Your task to perform on an android device: Open Youtube and go to "Your channel" Image 0: 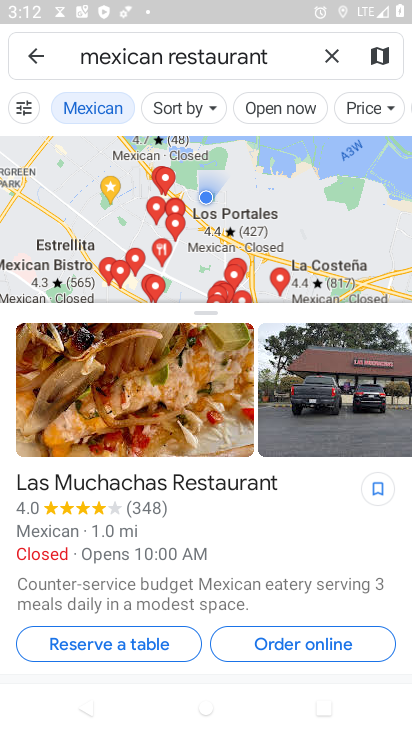
Step 0: press home button
Your task to perform on an android device: Open Youtube and go to "Your channel" Image 1: 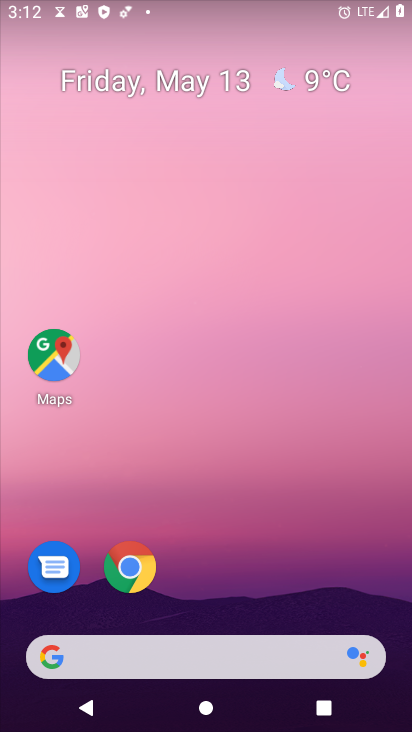
Step 1: drag from (324, 614) to (360, 11)
Your task to perform on an android device: Open Youtube and go to "Your channel" Image 2: 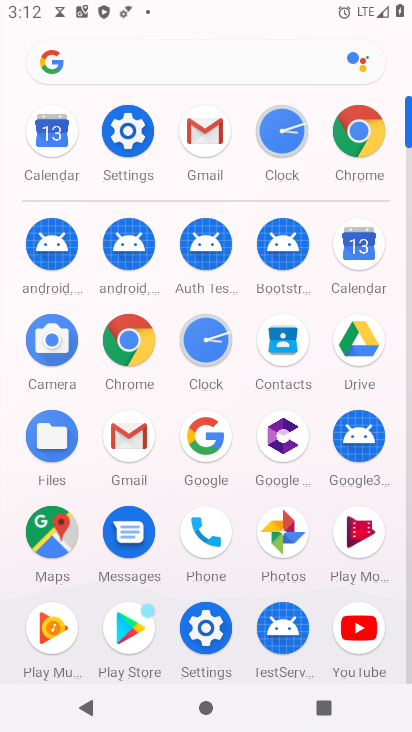
Step 2: click (363, 621)
Your task to perform on an android device: Open Youtube and go to "Your channel" Image 3: 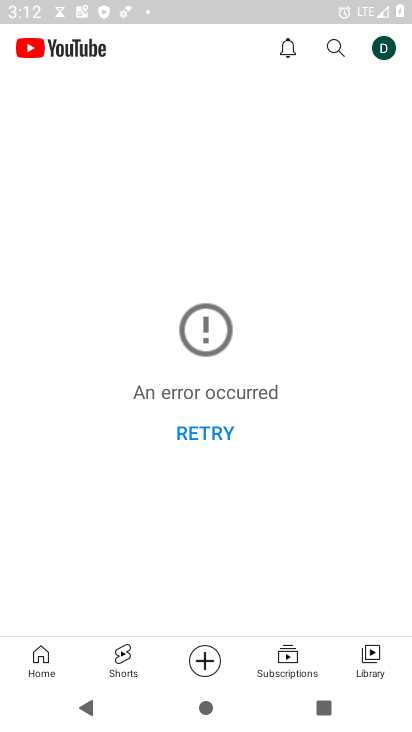
Step 3: click (388, 54)
Your task to perform on an android device: Open Youtube and go to "Your channel" Image 4: 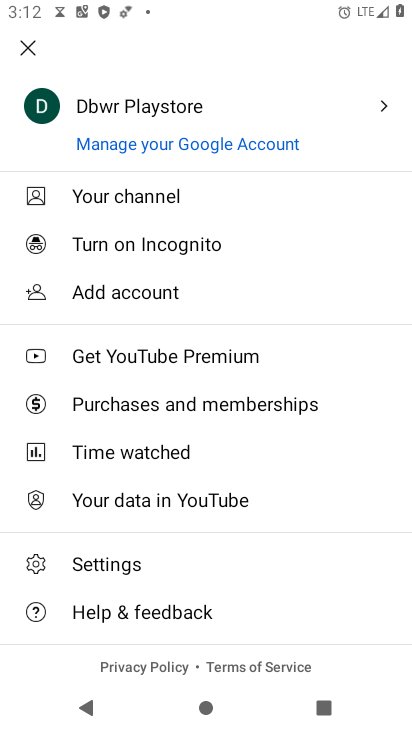
Step 4: click (121, 194)
Your task to perform on an android device: Open Youtube and go to "Your channel" Image 5: 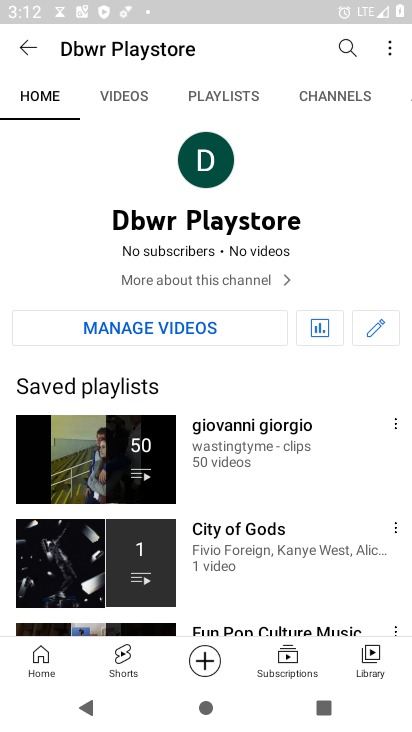
Step 5: task complete